Your task to perform on an android device: Show me productivity apps on the Play Store Image 0: 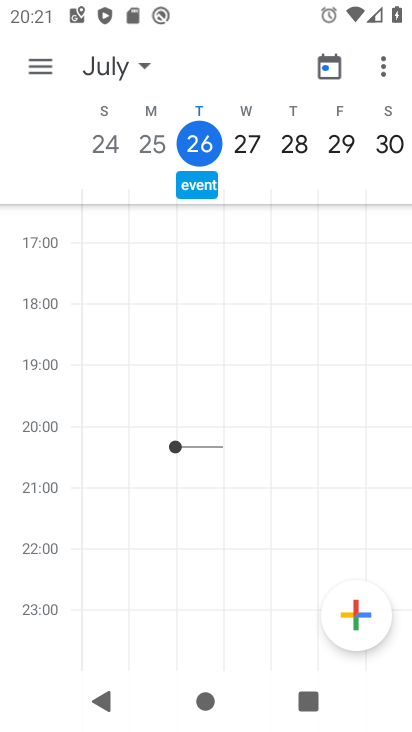
Step 0: drag from (262, 237) to (277, 516)
Your task to perform on an android device: Show me productivity apps on the Play Store Image 1: 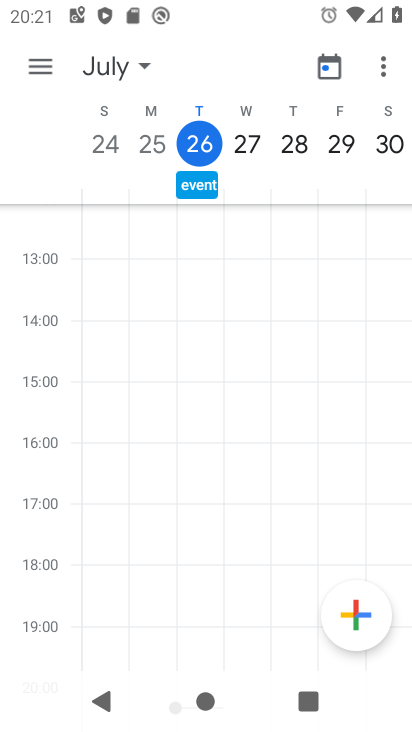
Step 1: task complete